Your task to perform on an android device: add a label to a message in the gmail app Image 0: 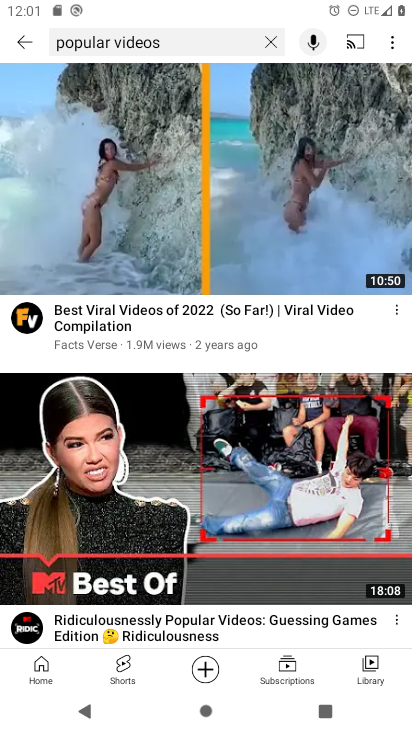
Step 0: press home button
Your task to perform on an android device: add a label to a message in the gmail app Image 1: 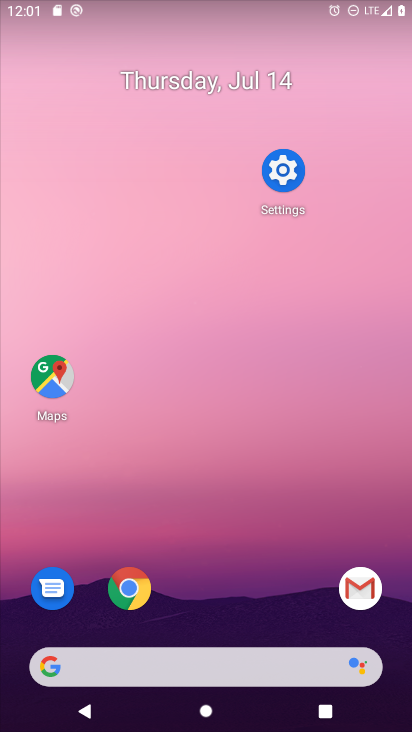
Step 1: click (347, 602)
Your task to perform on an android device: add a label to a message in the gmail app Image 2: 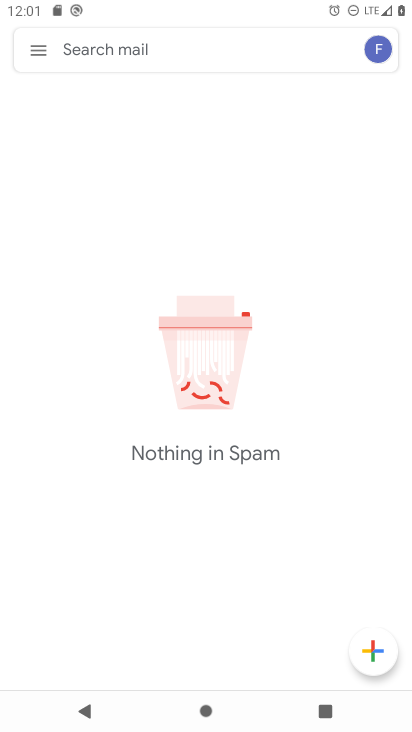
Step 2: click (43, 50)
Your task to perform on an android device: add a label to a message in the gmail app Image 3: 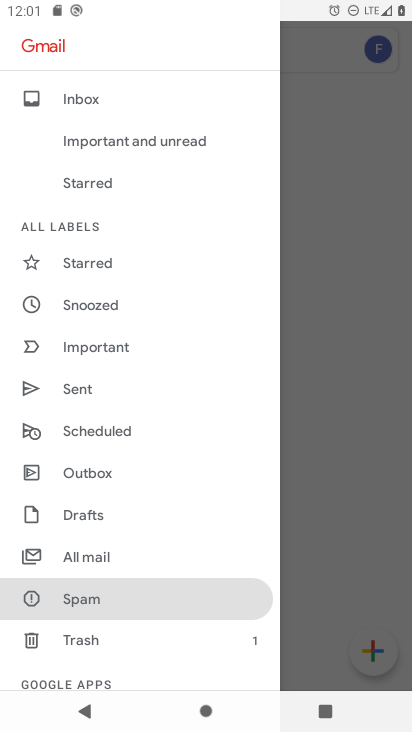
Step 3: drag from (99, 504) to (179, 269)
Your task to perform on an android device: add a label to a message in the gmail app Image 4: 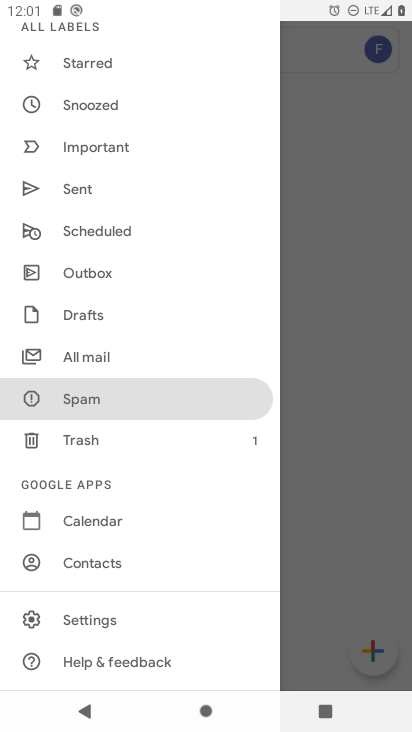
Step 4: click (82, 615)
Your task to perform on an android device: add a label to a message in the gmail app Image 5: 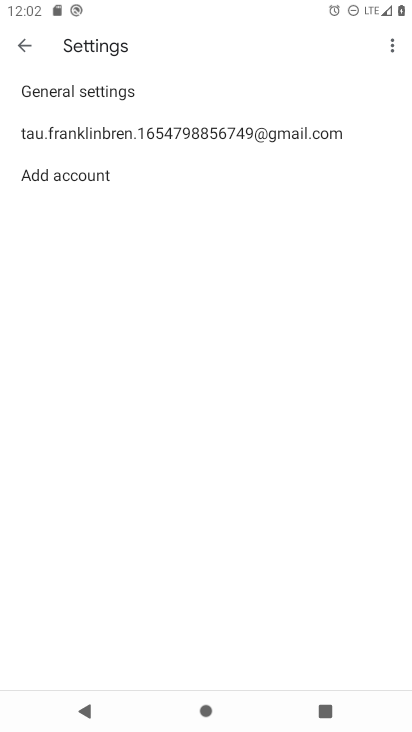
Step 5: click (127, 124)
Your task to perform on an android device: add a label to a message in the gmail app Image 6: 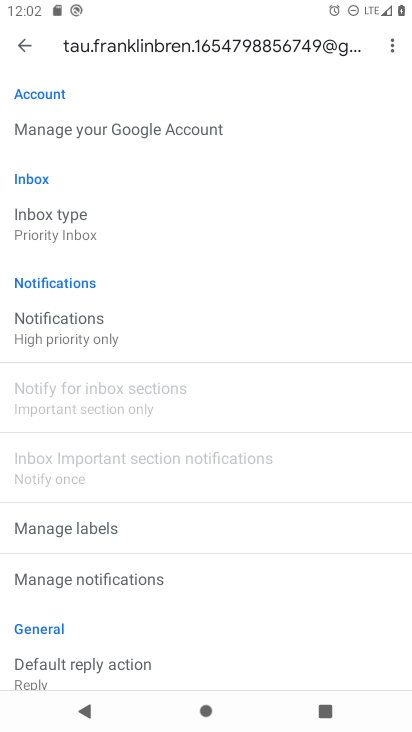
Step 6: click (114, 541)
Your task to perform on an android device: add a label to a message in the gmail app Image 7: 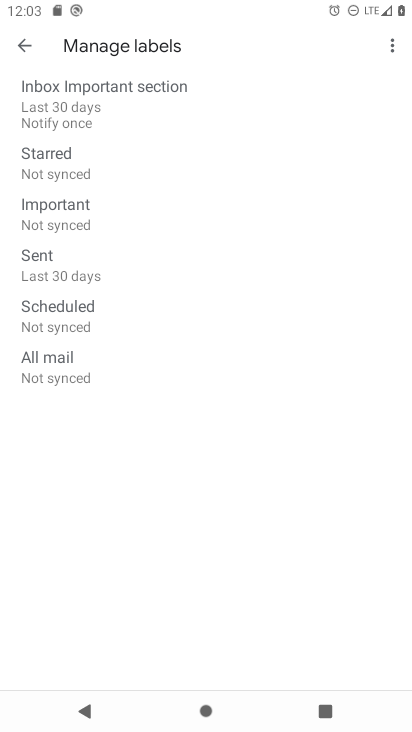
Step 7: task complete